Your task to perform on an android device: What's the weather going to be tomorrow? Image 0: 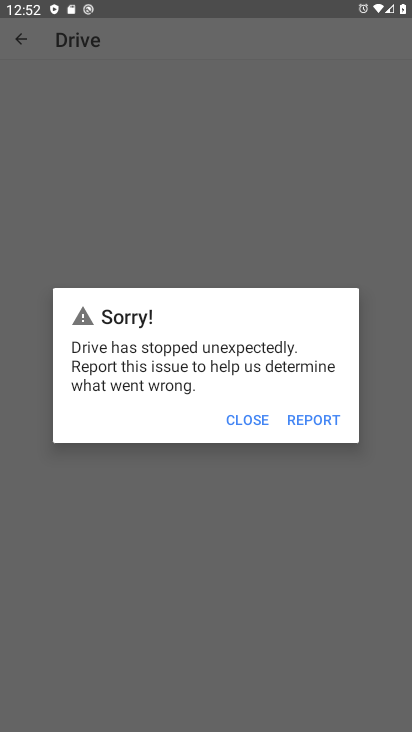
Step 0: drag from (202, 666) to (191, 460)
Your task to perform on an android device: What's the weather going to be tomorrow? Image 1: 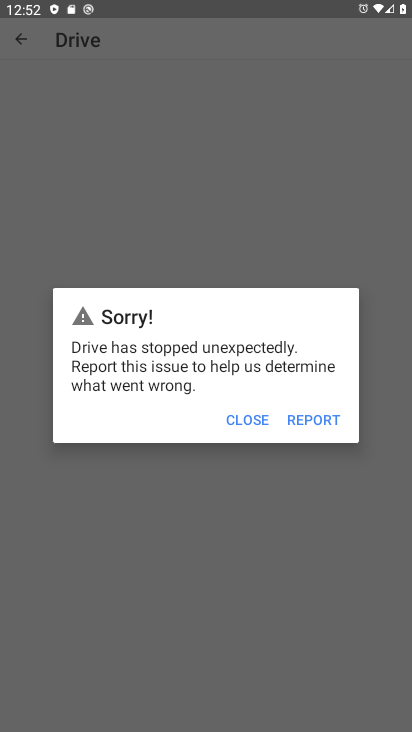
Step 1: press home button
Your task to perform on an android device: What's the weather going to be tomorrow? Image 2: 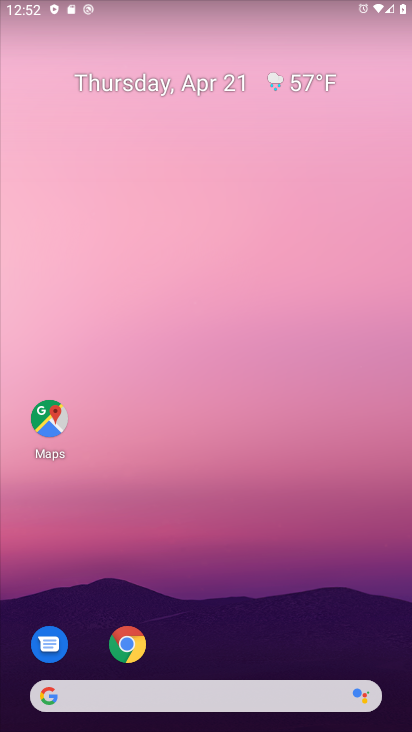
Step 2: drag from (221, 568) to (0, 355)
Your task to perform on an android device: What's the weather going to be tomorrow? Image 3: 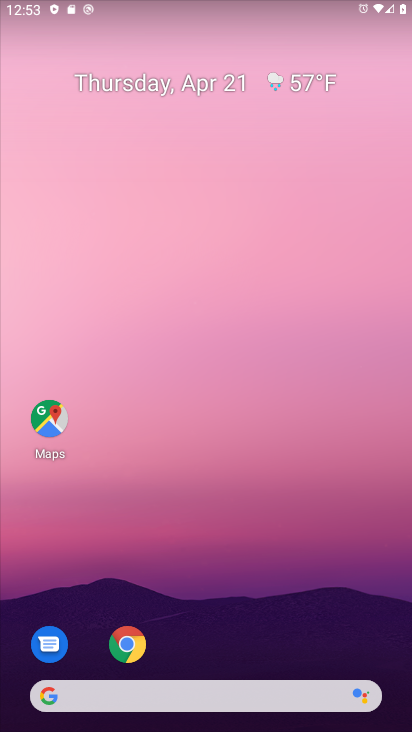
Step 3: click (180, 686)
Your task to perform on an android device: What's the weather going to be tomorrow? Image 4: 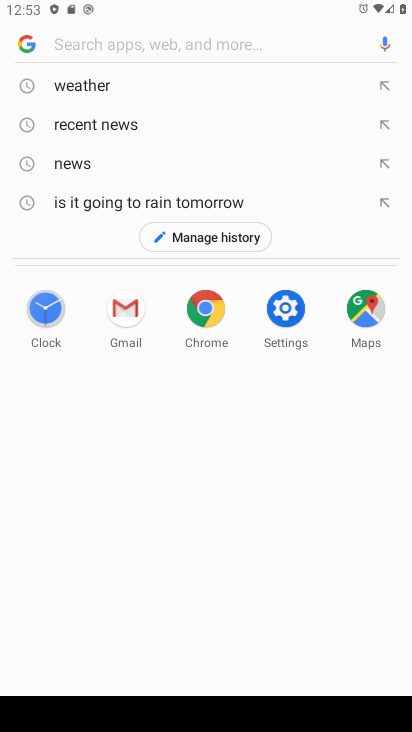
Step 4: click (63, 79)
Your task to perform on an android device: What's the weather going to be tomorrow? Image 5: 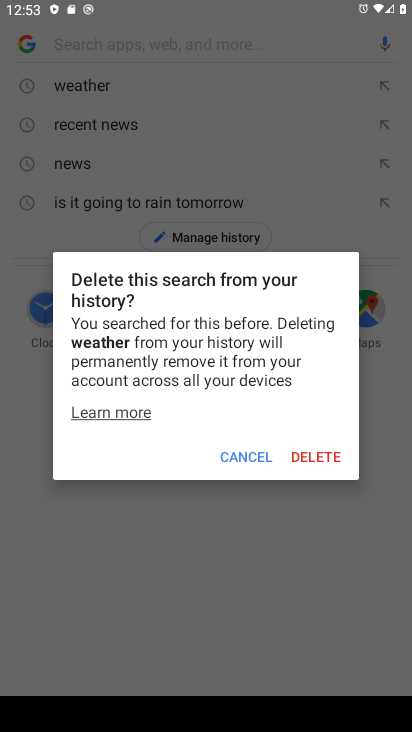
Step 5: click (107, 53)
Your task to perform on an android device: What's the weather going to be tomorrow? Image 6: 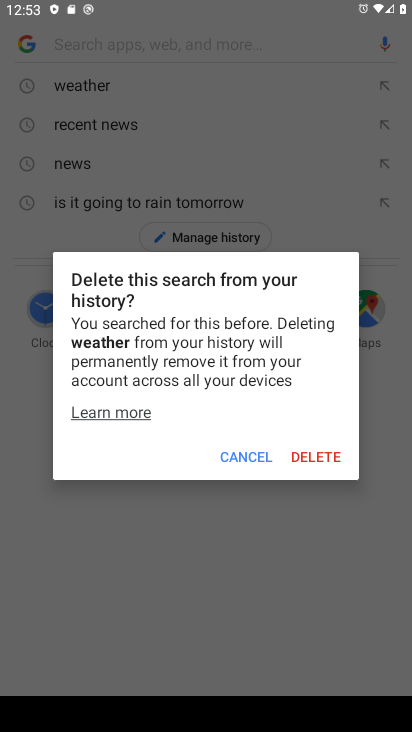
Step 6: click (106, 67)
Your task to perform on an android device: What's the weather going to be tomorrow? Image 7: 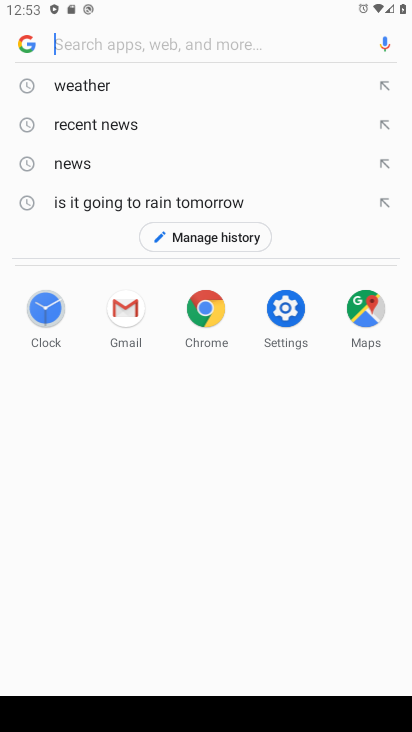
Step 7: click (107, 96)
Your task to perform on an android device: What's the weather going to be tomorrow? Image 8: 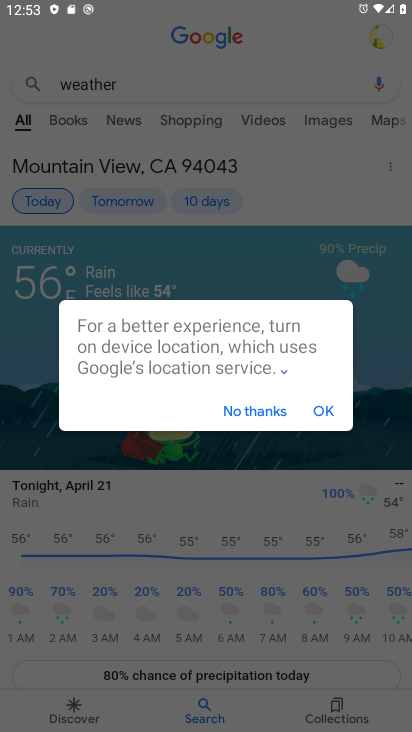
Step 8: click (153, 211)
Your task to perform on an android device: What's the weather going to be tomorrow? Image 9: 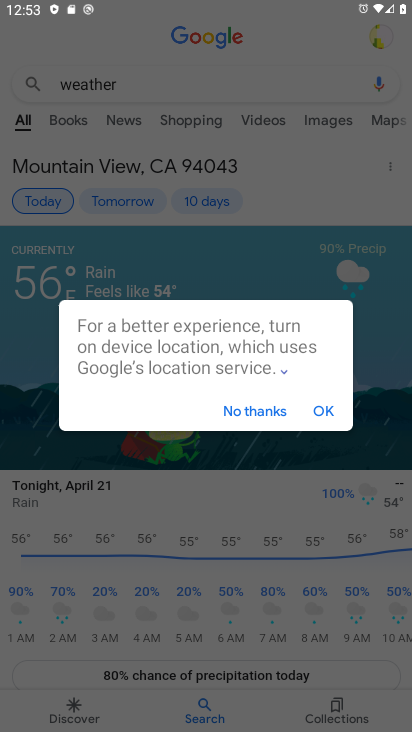
Step 9: click (305, 407)
Your task to perform on an android device: What's the weather going to be tomorrow? Image 10: 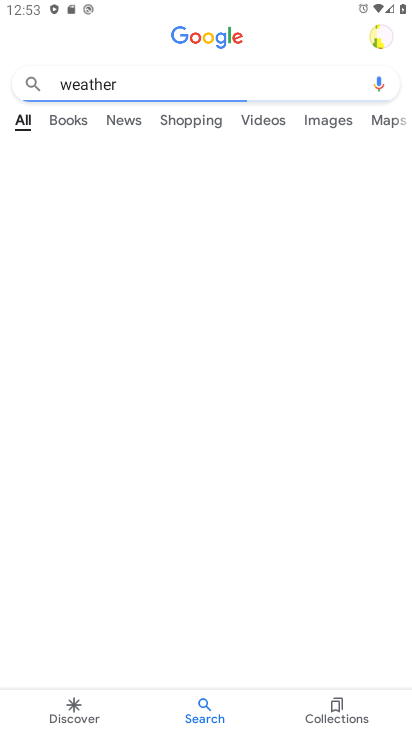
Step 10: click (87, 196)
Your task to perform on an android device: What's the weather going to be tomorrow? Image 11: 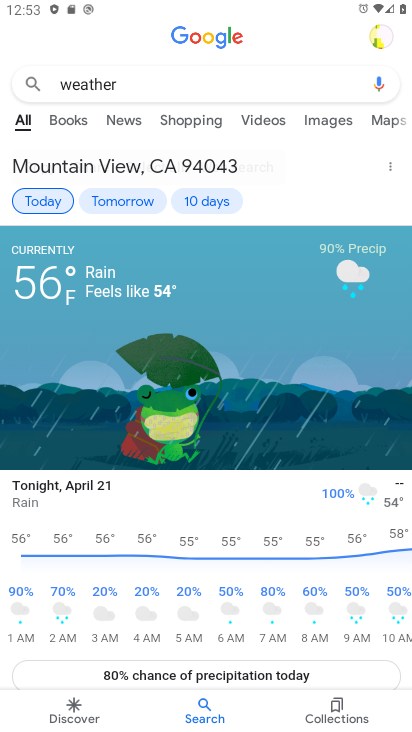
Step 11: click (87, 196)
Your task to perform on an android device: What's the weather going to be tomorrow? Image 12: 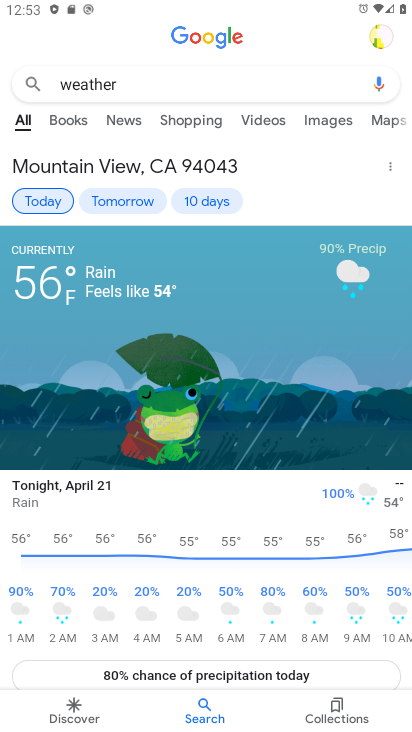
Step 12: click (87, 196)
Your task to perform on an android device: What's the weather going to be tomorrow? Image 13: 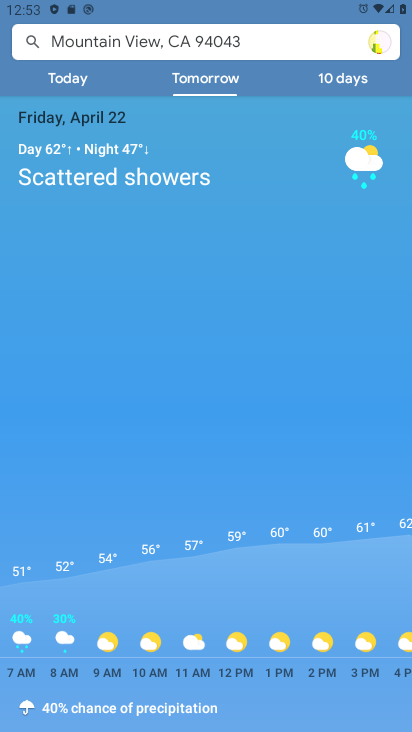
Step 13: task complete